Your task to perform on an android device: Go to location settings Image 0: 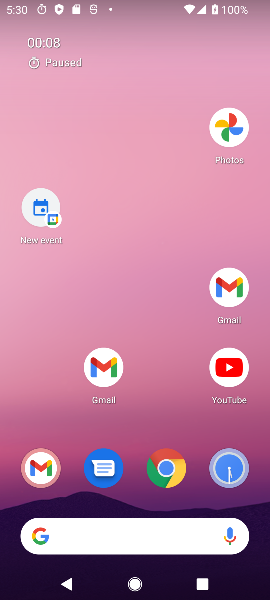
Step 0: drag from (157, 458) to (95, 180)
Your task to perform on an android device: Go to location settings Image 1: 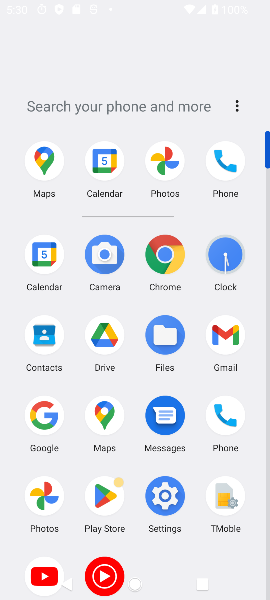
Step 1: drag from (138, 323) to (134, 117)
Your task to perform on an android device: Go to location settings Image 2: 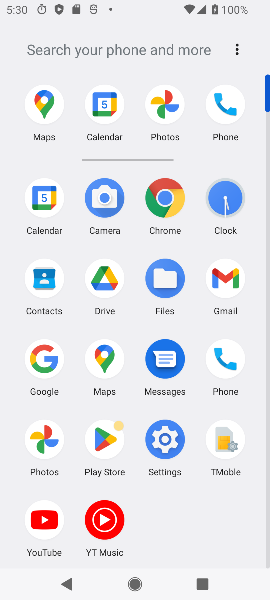
Step 2: click (162, 438)
Your task to perform on an android device: Go to location settings Image 3: 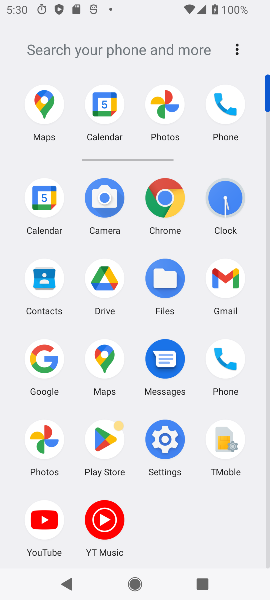
Step 3: click (162, 438)
Your task to perform on an android device: Go to location settings Image 4: 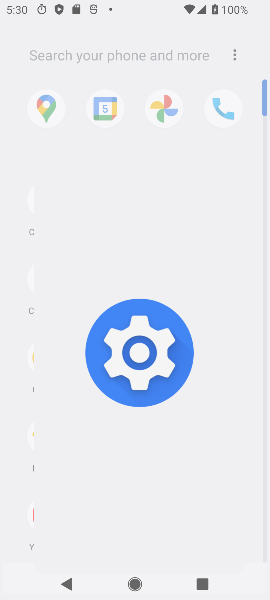
Step 4: click (162, 440)
Your task to perform on an android device: Go to location settings Image 5: 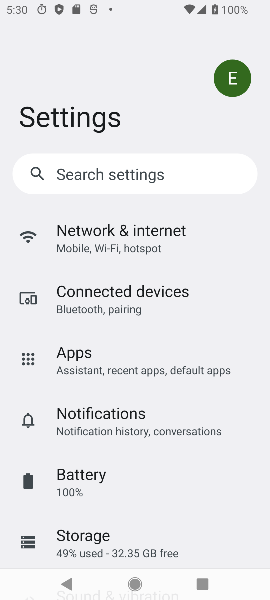
Step 5: drag from (127, 496) to (80, 237)
Your task to perform on an android device: Go to location settings Image 6: 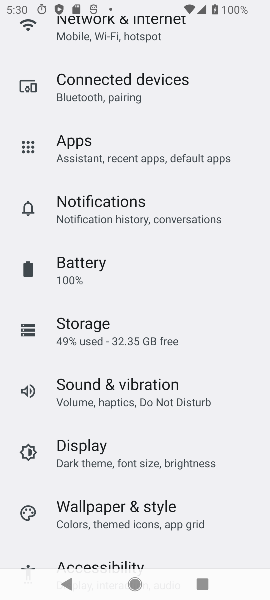
Step 6: drag from (78, 444) to (109, 232)
Your task to perform on an android device: Go to location settings Image 7: 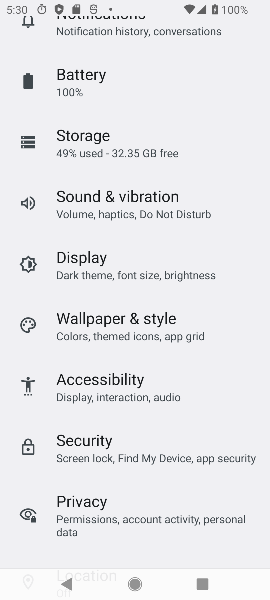
Step 7: drag from (110, 455) to (74, 252)
Your task to perform on an android device: Go to location settings Image 8: 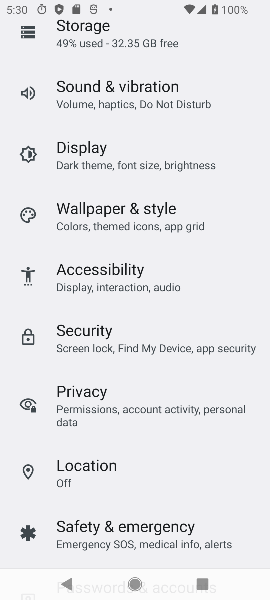
Step 8: drag from (118, 419) to (101, 202)
Your task to perform on an android device: Go to location settings Image 9: 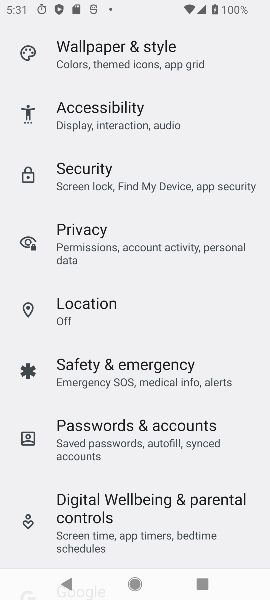
Step 9: click (86, 299)
Your task to perform on an android device: Go to location settings Image 10: 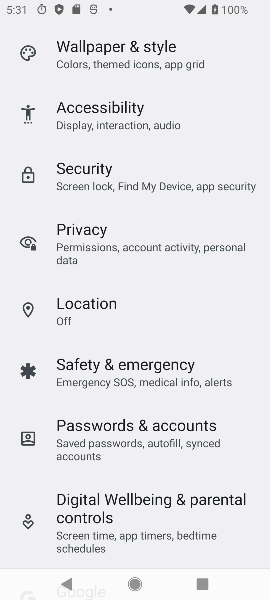
Step 10: click (86, 299)
Your task to perform on an android device: Go to location settings Image 11: 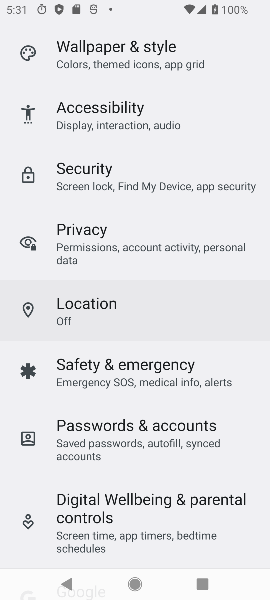
Step 11: click (86, 299)
Your task to perform on an android device: Go to location settings Image 12: 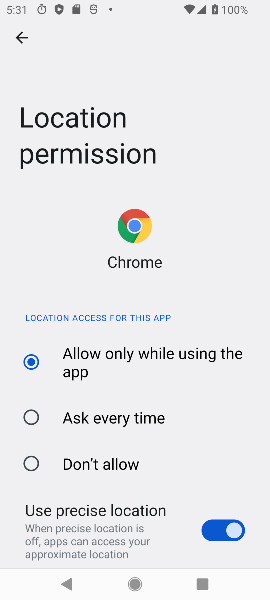
Step 12: click (18, 36)
Your task to perform on an android device: Go to location settings Image 13: 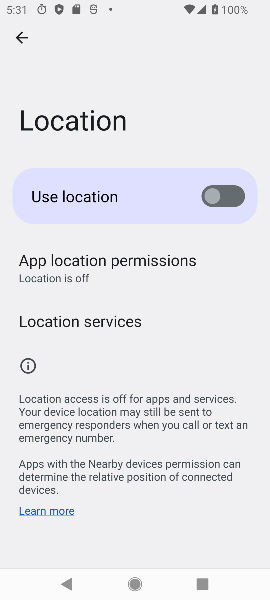
Step 13: click (77, 319)
Your task to perform on an android device: Go to location settings Image 14: 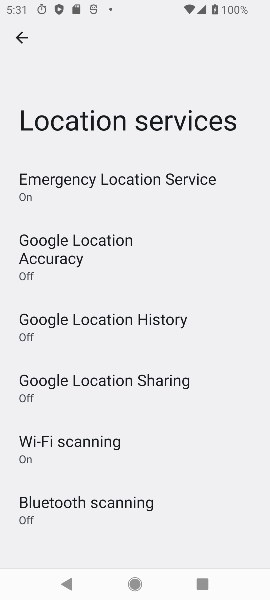
Step 14: task complete